Your task to perform on an android device: turn on bluetooth scan Image 0: 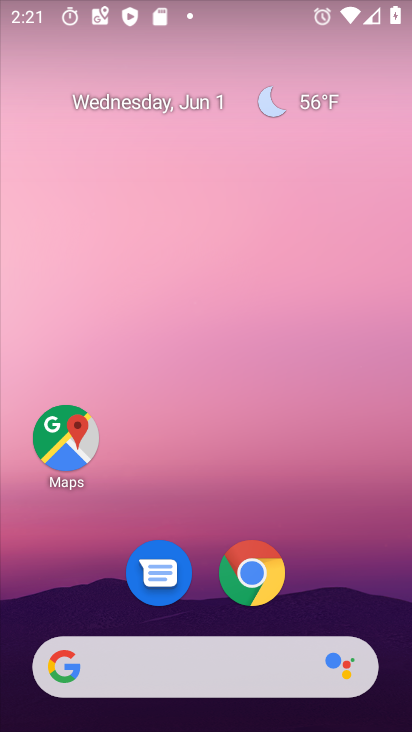
Step 0: drag from (351, 567) to (402, 7)
Your task to perform on an android device: turn on bluetooth scan Image 1: 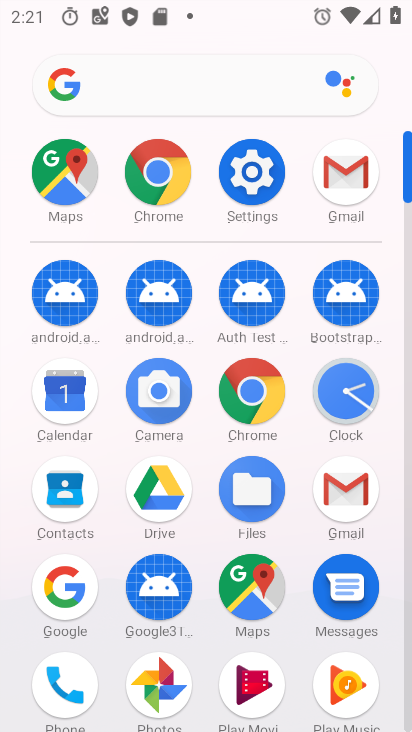
Step 1: click (264, 169)
Your task to perform on an android device: turn on bluetooth scan Image 2: 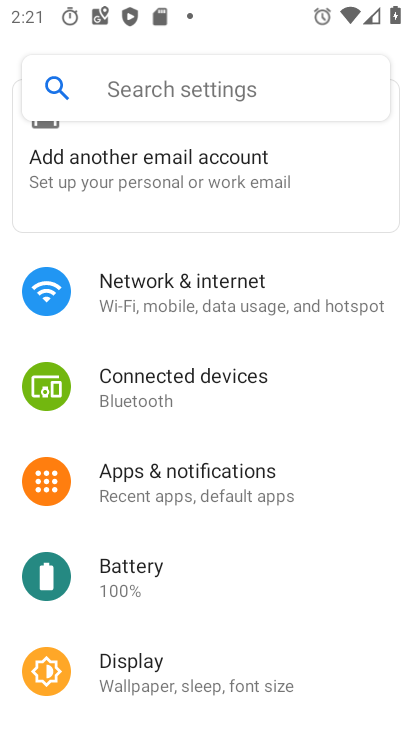
Step 2: drag from (263, 631) to (269, 208)
Your task to perform on an android device: turn on bluetooth scan Image 3: 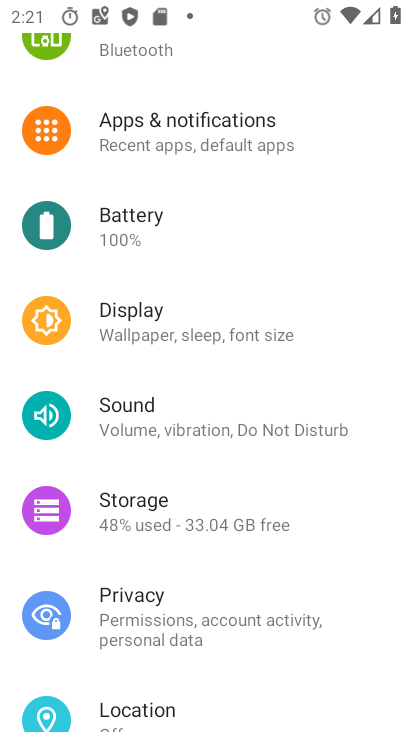
Step 3: drag from (203, 645) to (234, 220)
Your task to perform on an android device: turn on bluetooth scan Image 4: 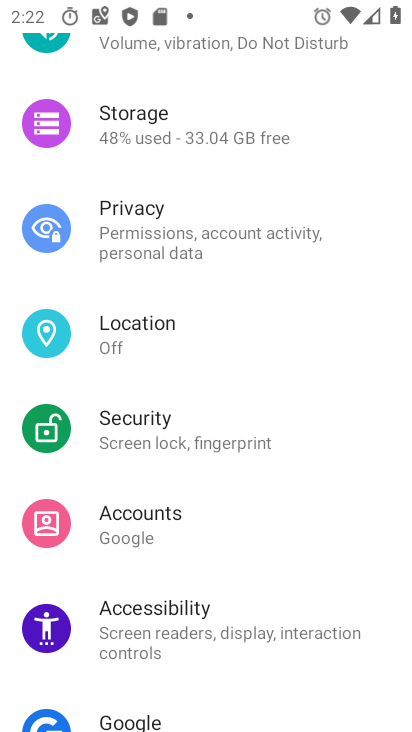
Step 4: click (129, 309)
Your task to perform on an android device: turn on bluetooth scan Image 5: 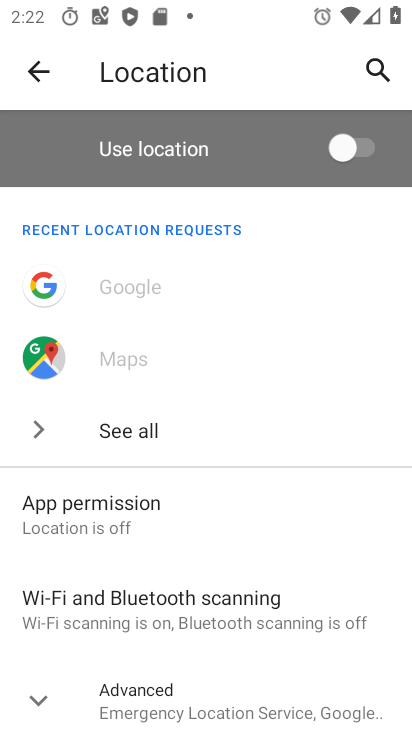
Step 5: drag from (142, 616) to (150, 321)
Your task to perform on an android device: turn on bluetooth scan Image 6: 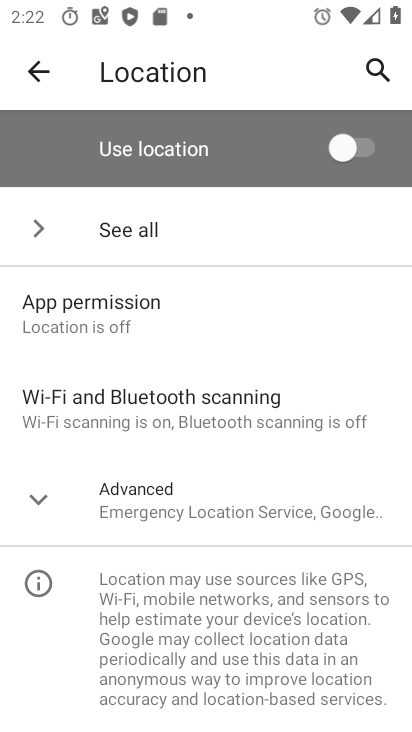
Step 6: click (148, 411)
Your task to perform on an android device: turn on bluetooth scan Image 7: 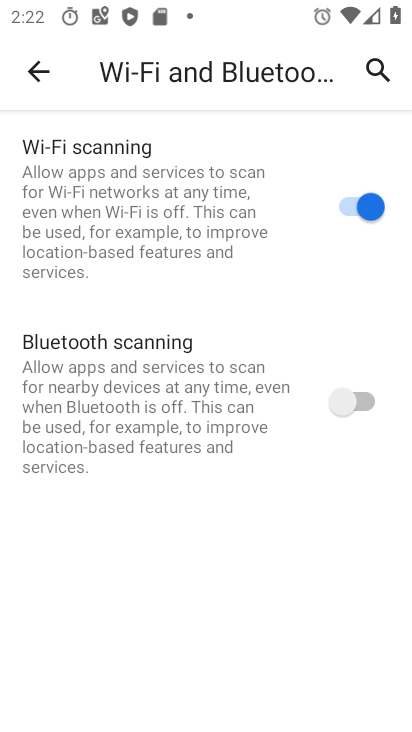
Step 7: click (374, 394)
Your task to perform on an android device: turn on bluetooth scan Image 8: 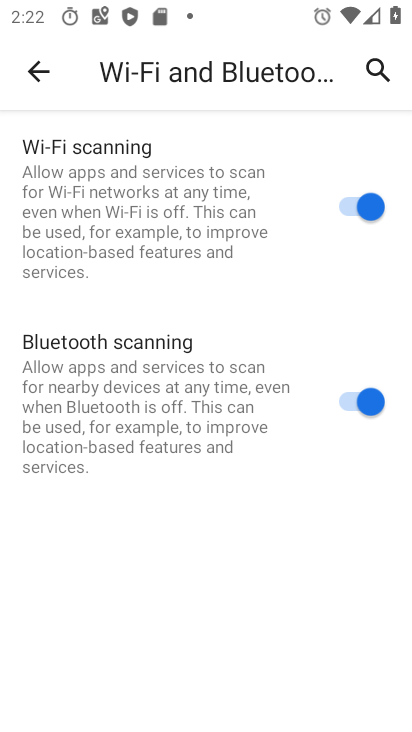
Step 8: task complete